Your task to perform on an android device: Empty the shopping cart on ebay. Image 0: 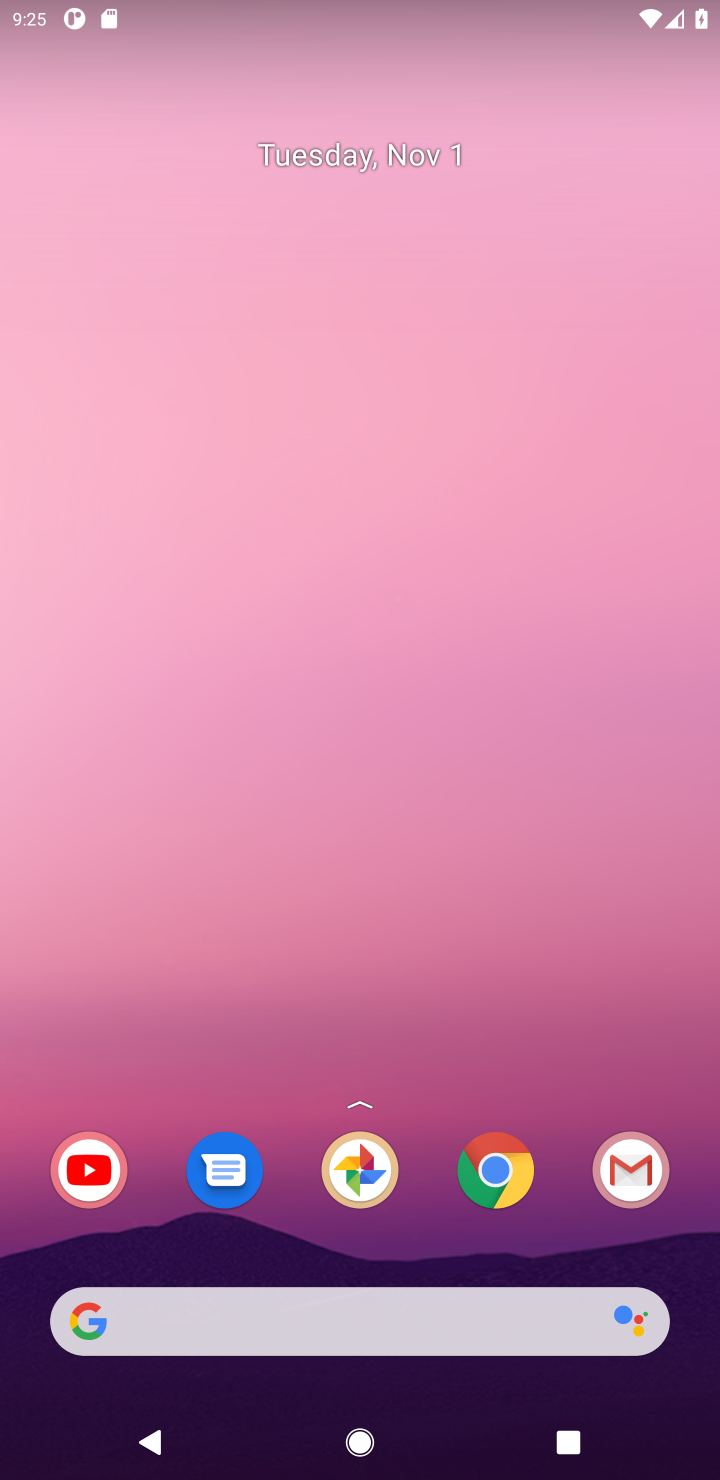
Step 0: click (517, 1188)
Your task to perform on an android device: Empty the shopping cart on ebay. Image 1: 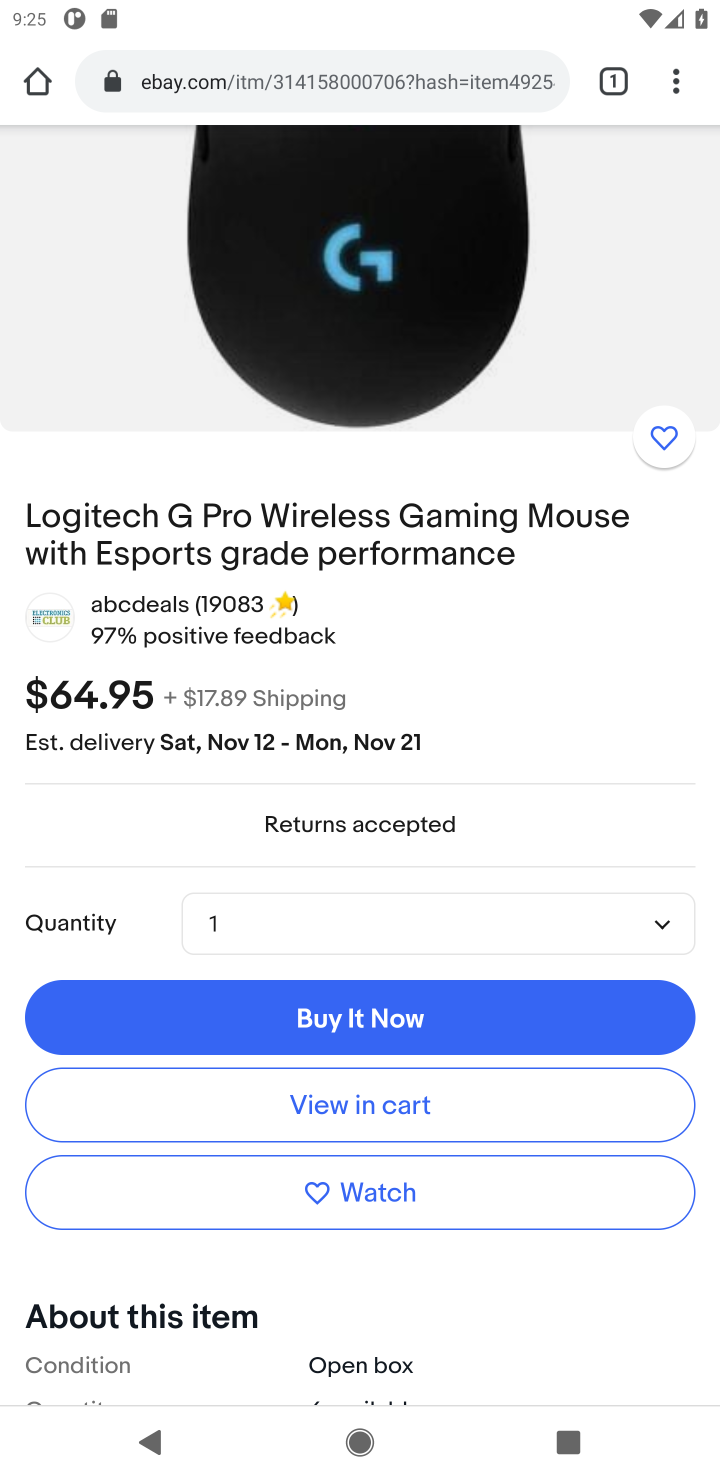
Step 1: click (435, 79)
Your task to perform on an android device: Empty the shopping cart on ebay. Image 2: 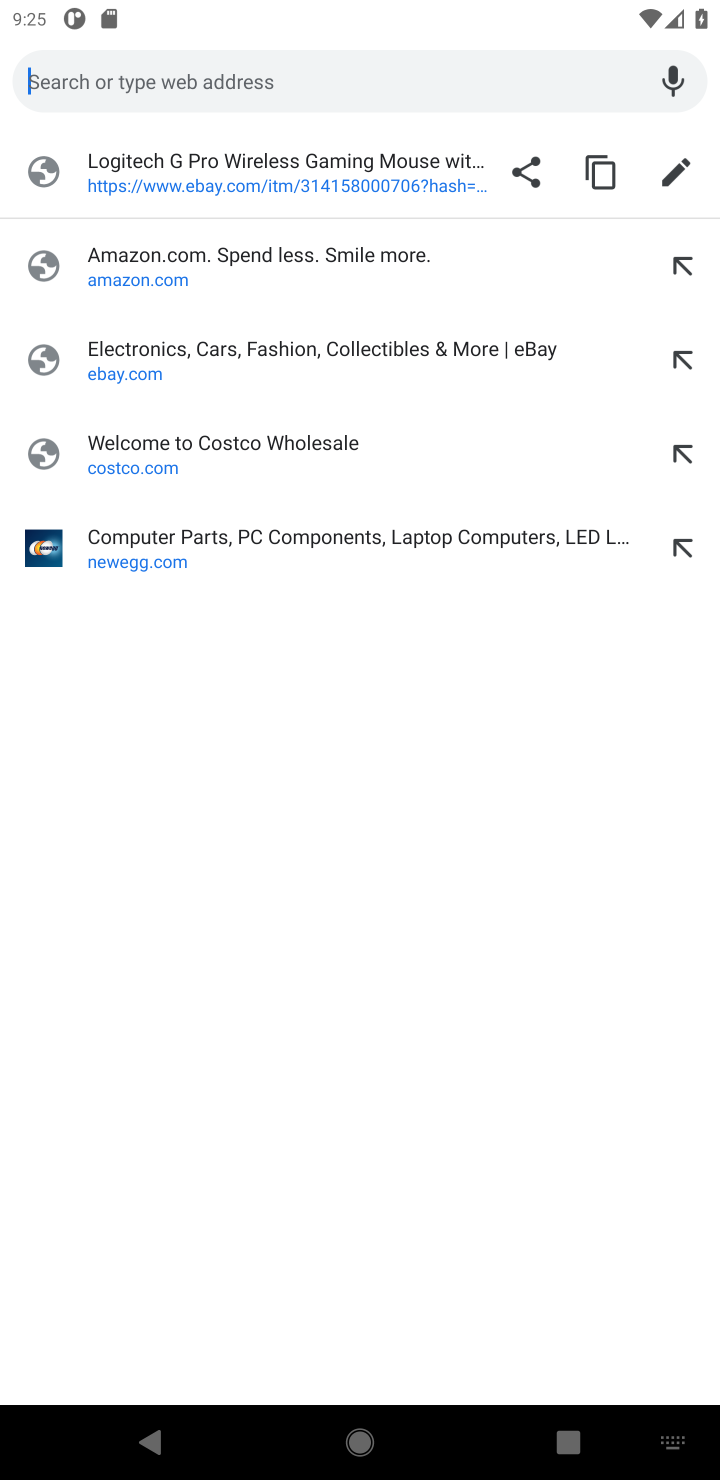
Step 2: type "ebay"
Your task to perform on an android device: Empty the shopping cart on ebay. Image 3: 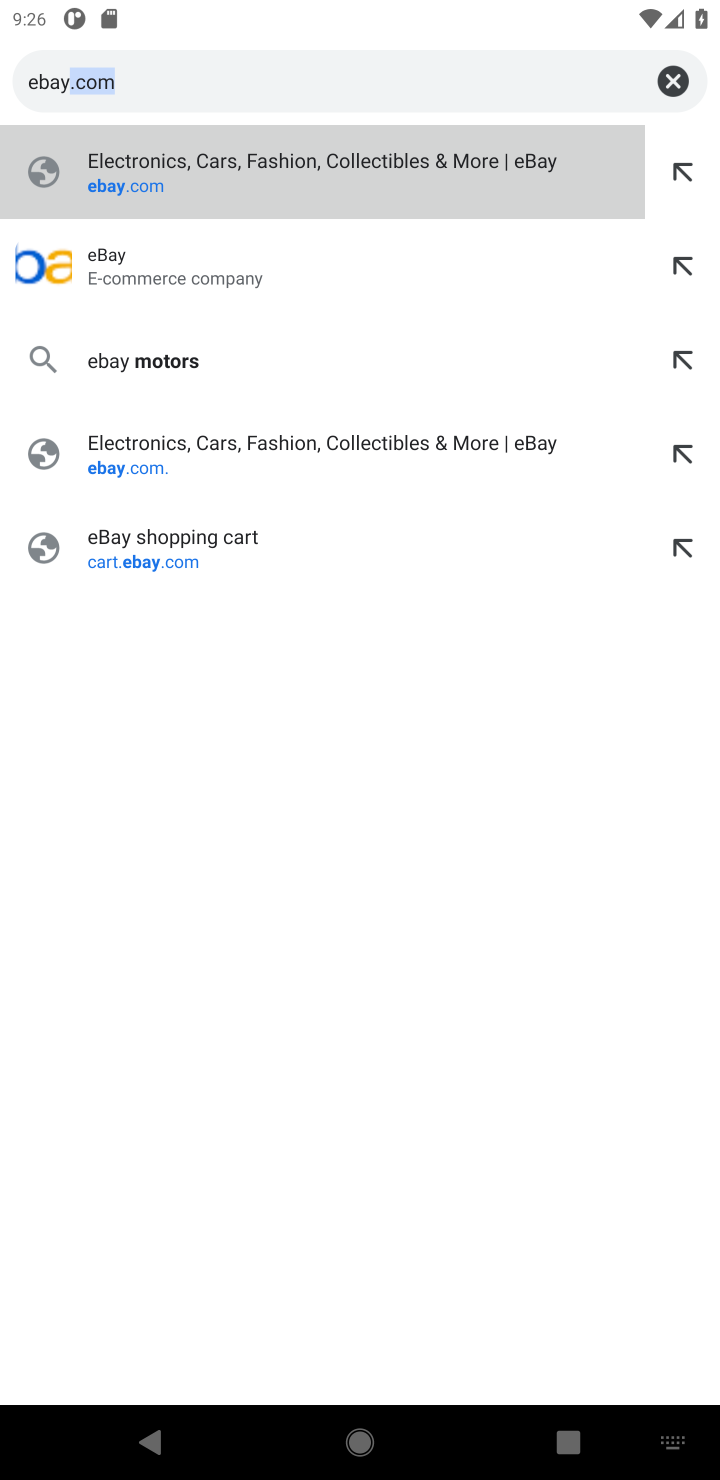
Step 3: type ""
Your task to perform on an android device: Empty the shopping cart on ebay. Image 4: 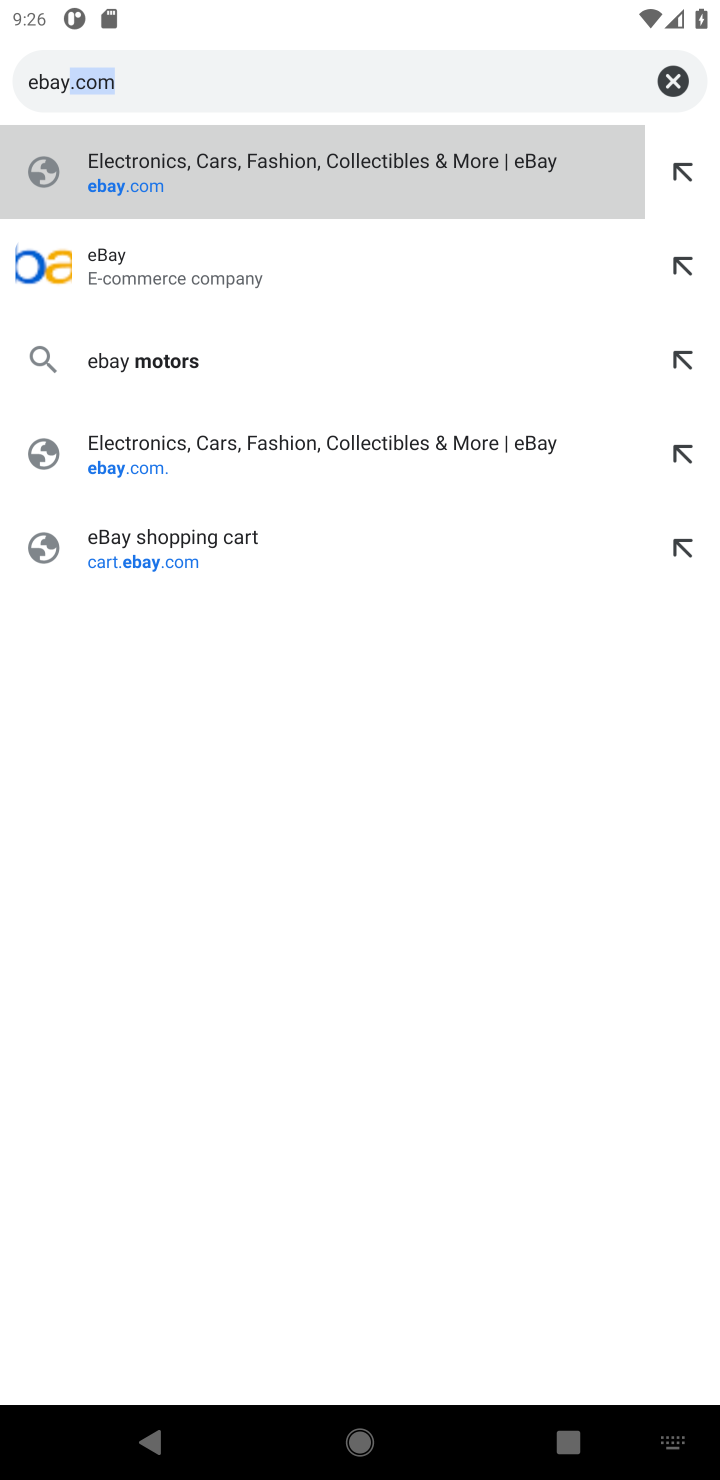
Step 4: press enter
Your task to perform on an android device: Empty the shopping cart on ebay. Image 5: 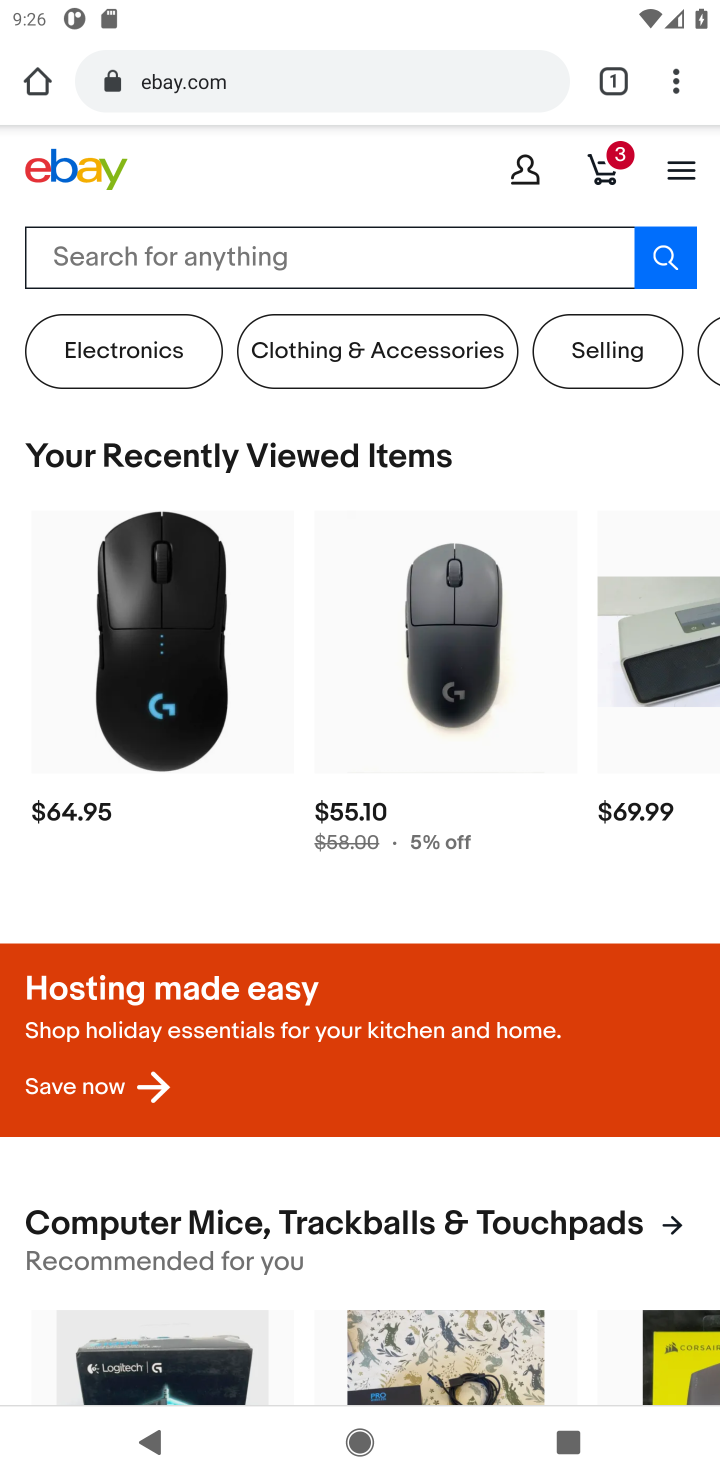
Step 5: click (603, 181)
Your task to perform on an android device: Empty the shopping cart on ebay. Image 6: 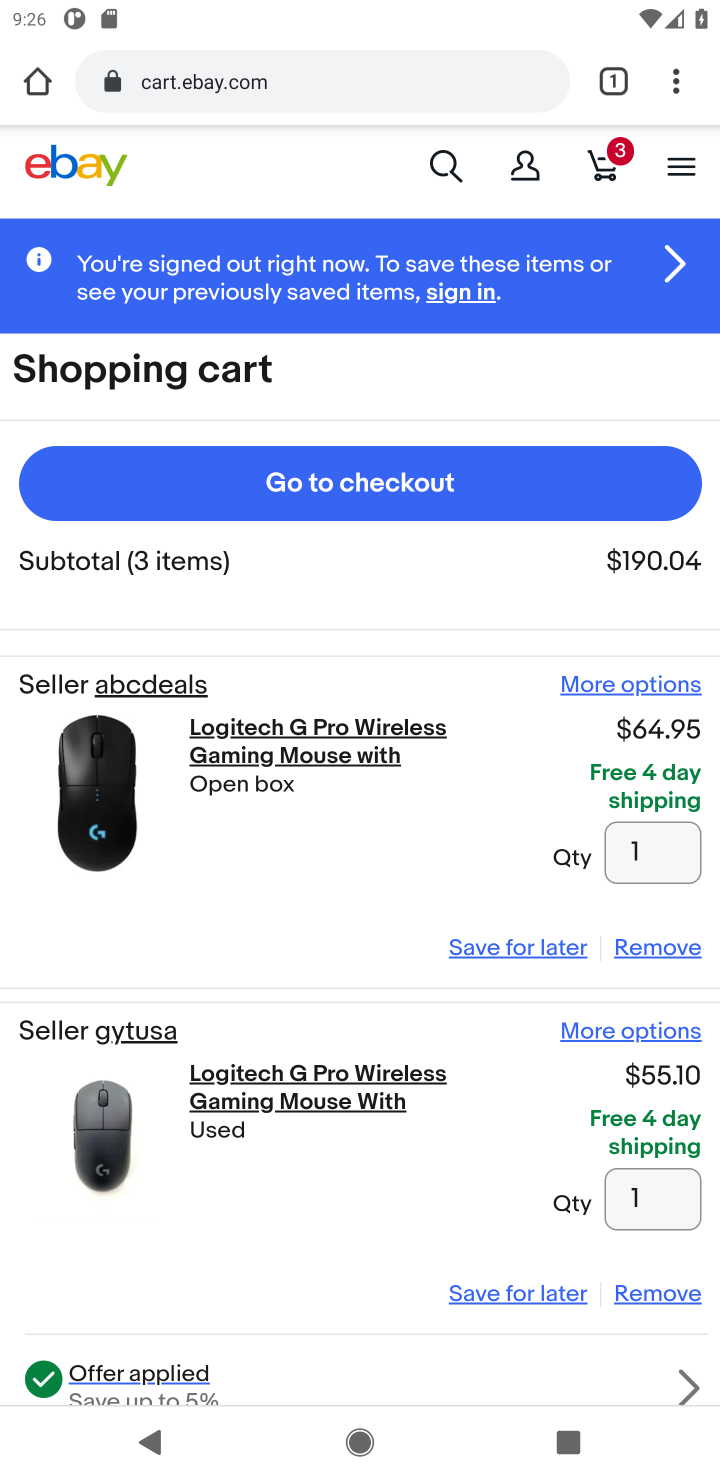
Step 6: click (644, 948)
Your task to perform on an android device: Empty the shopping cart on ebay. Image 7: 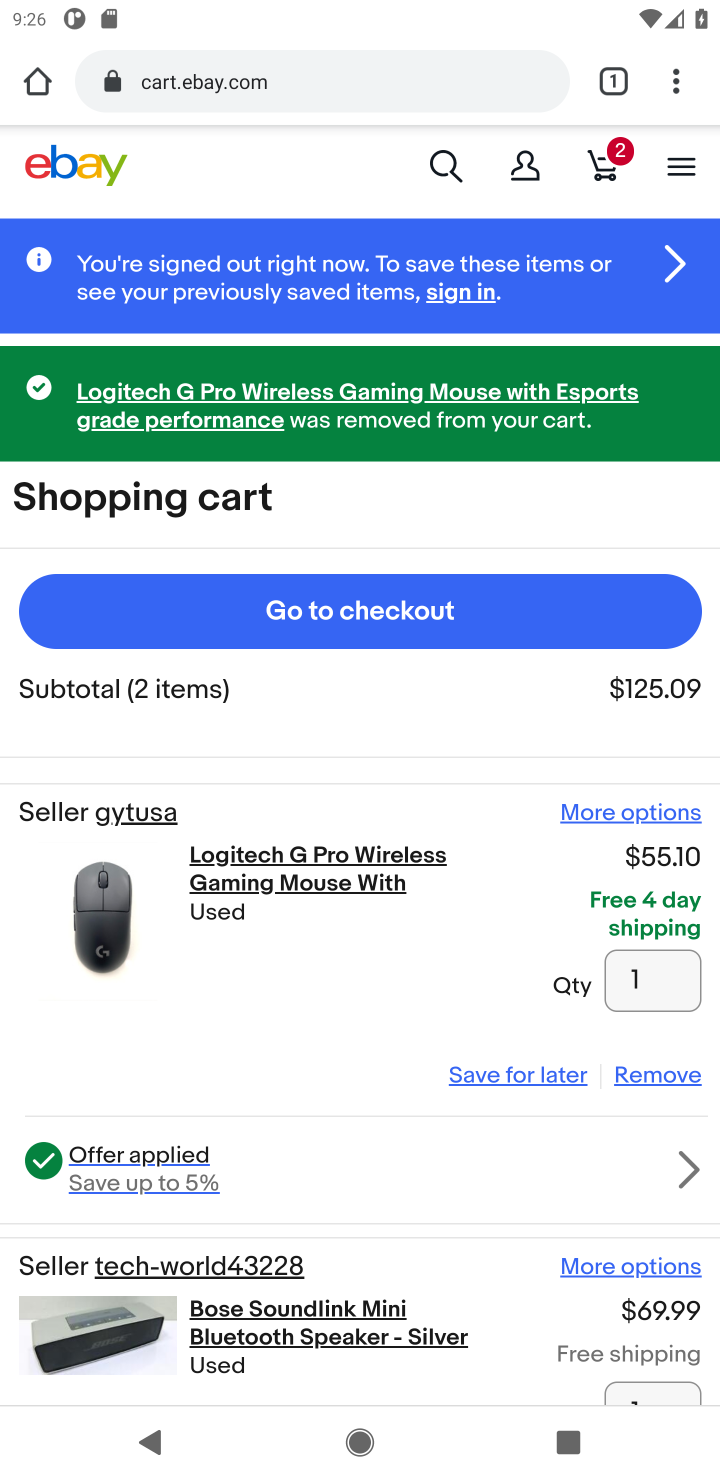
Step 7: click (681, 1077)
Your task to perform on an android device: Empty the shopping cart on ebay. Image 8: 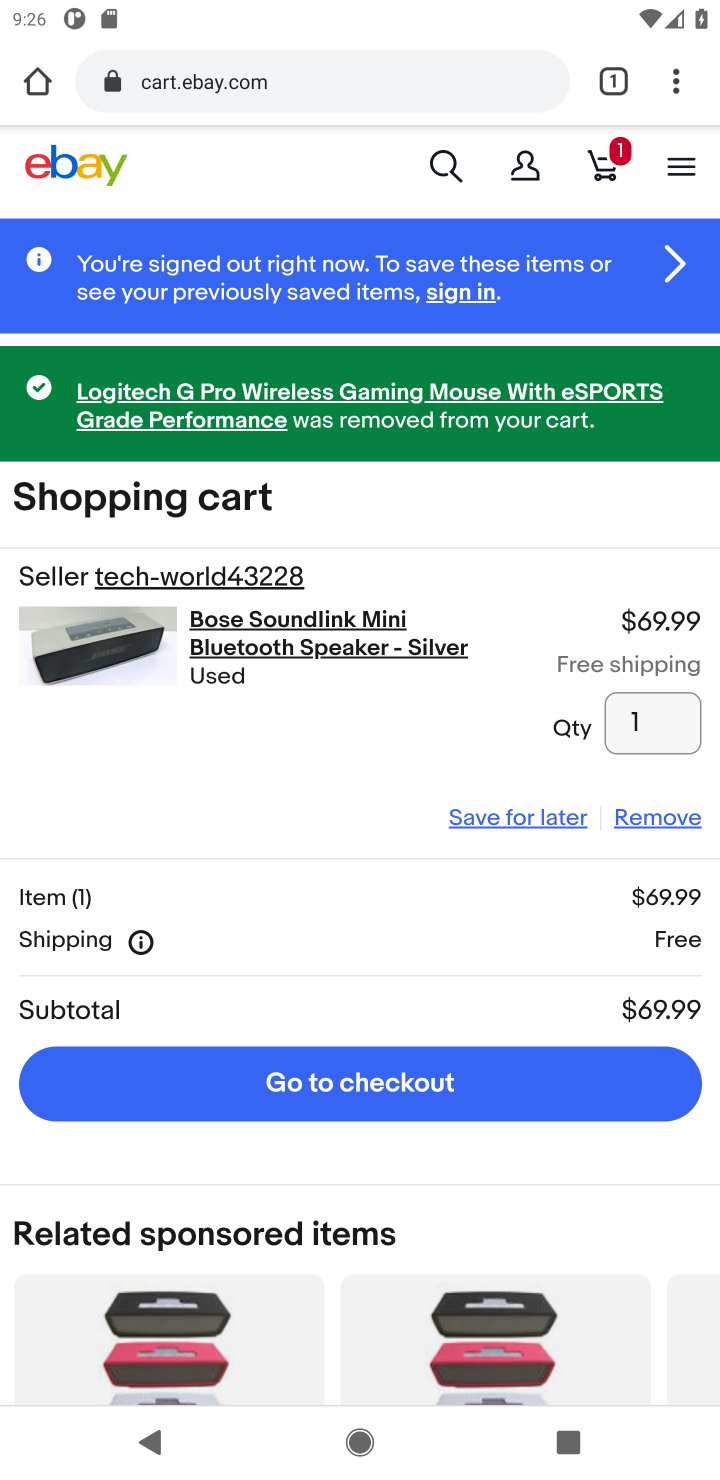
Step 8: click (663, 822)
Your task to perform on an android device: Empty the shopping cart on ebay. Image 9: 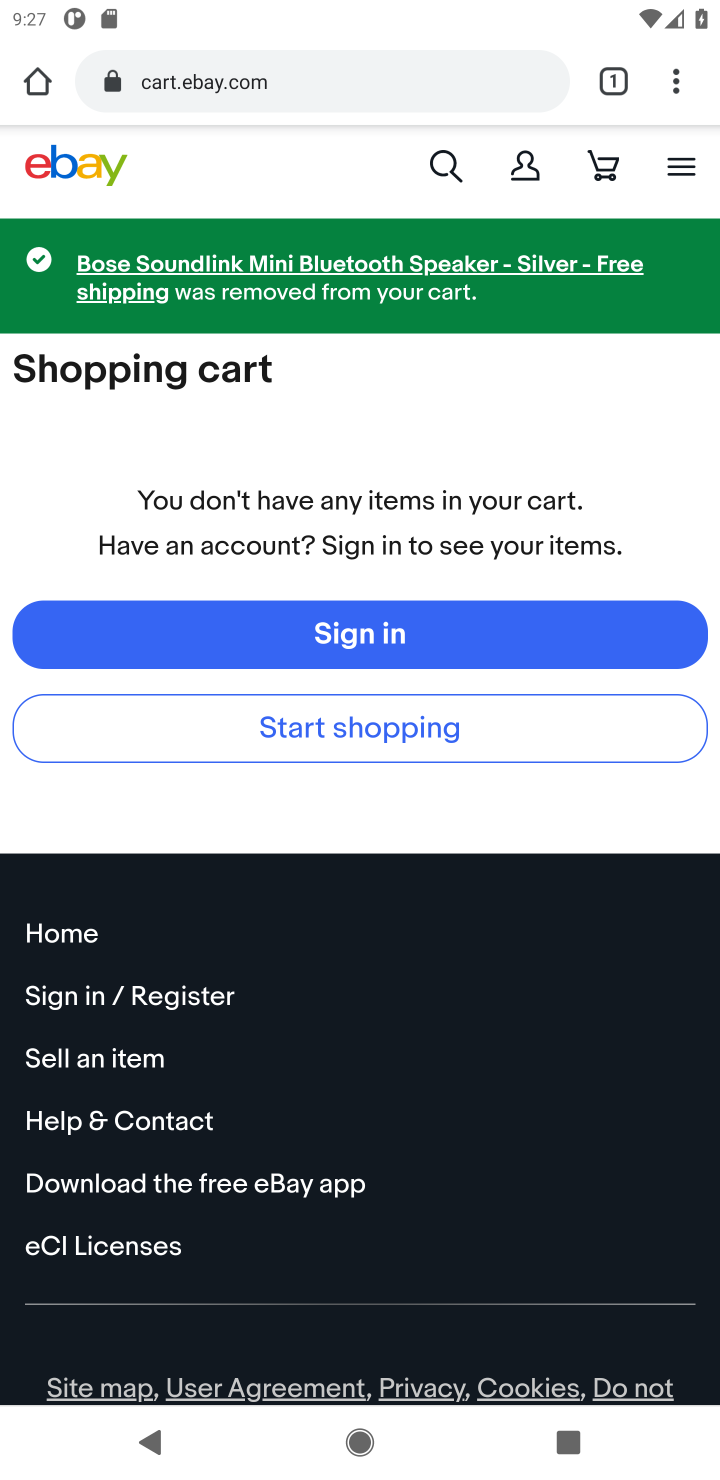
Step 9: task complete